Your task to perform on an android device: open a bookmark in the chrome app Image 0: 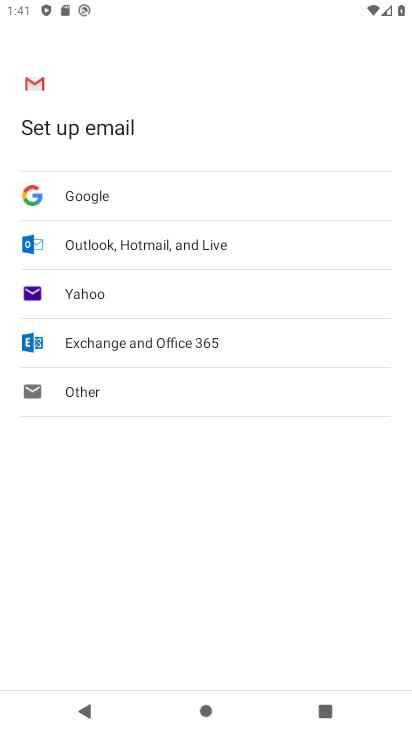
Step 0: press home button
Your task to perform on an android device: open a bookmark in the chrome app Image 1: 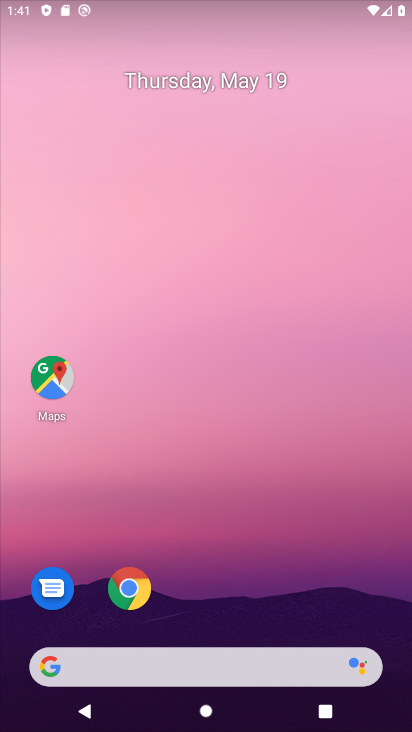
Step 1: drag from (227, 556) to (215, 97)
Your task to perform on an android device: open a bookmark in the chrome app Image 2: 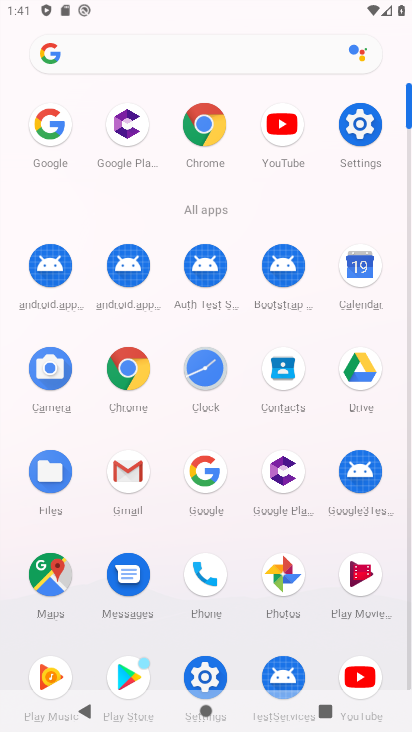
Step 2: click (196, 130)
Your task to perform on an android device: open a bookmark in the chrome app Image 3: 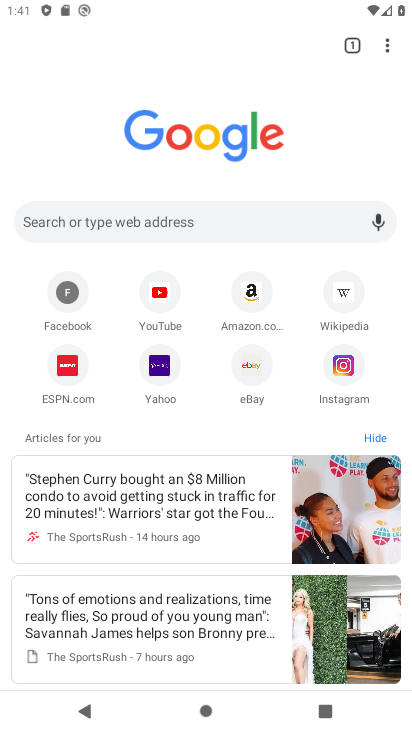
Step 3: click (383, 43)
Your task to perform on an android device: open a bookmark in the chrome app Image 4: 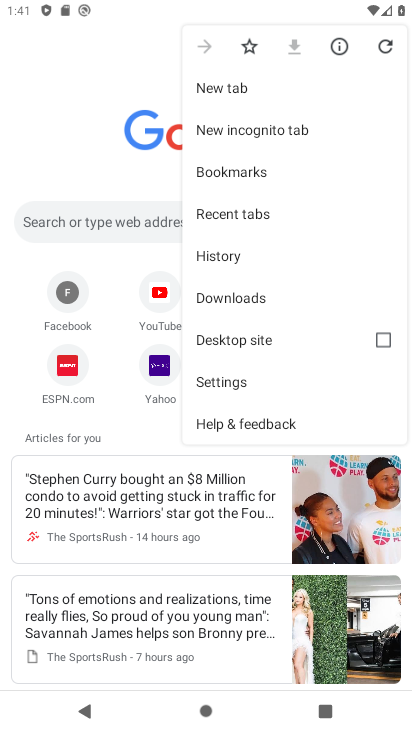
Step 4: click (257, 173)
Your task to perform on an android device: open a bookmark in the chrome app Image 5: 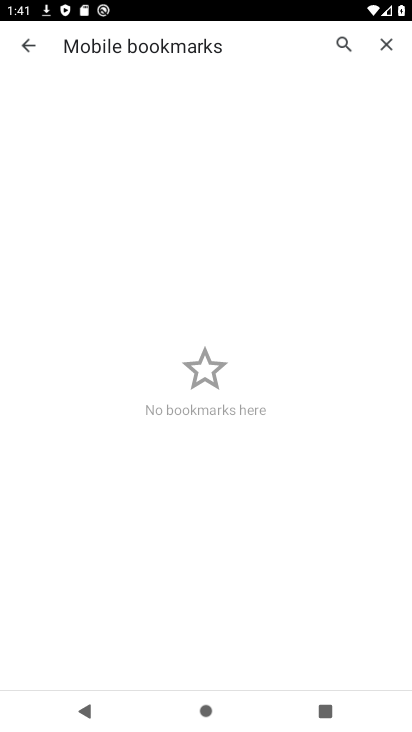
Step 5: task complete